Your task to perform on an android device: check battery use Image 0: 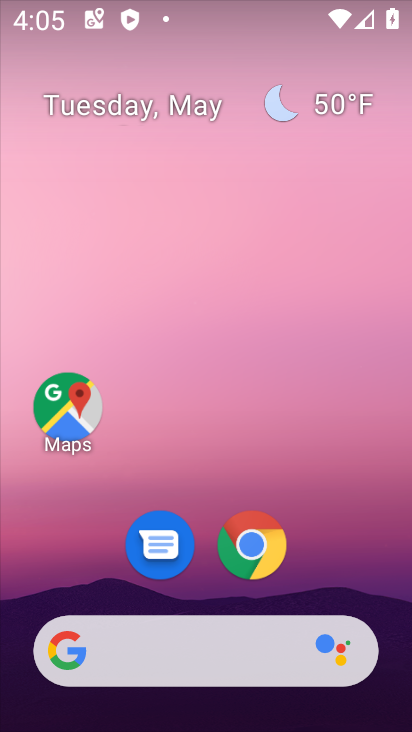
Step 0: drag from (230, 566) to (244, 329)
Your task to perform on an android device: check battery use Image 1: 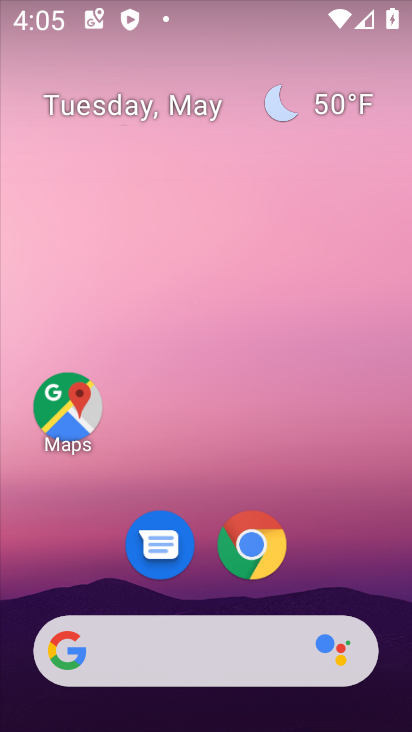
Step 1: drag from (182, 579) to (231, 219)
Your task to perform on an android device: check battery use Image 2: 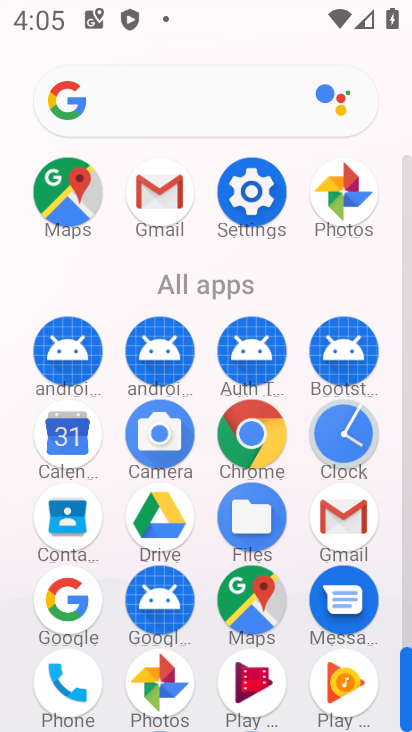
Step 2: click (259, 208)
Your task to perform on an android device: check battery use Image 3: 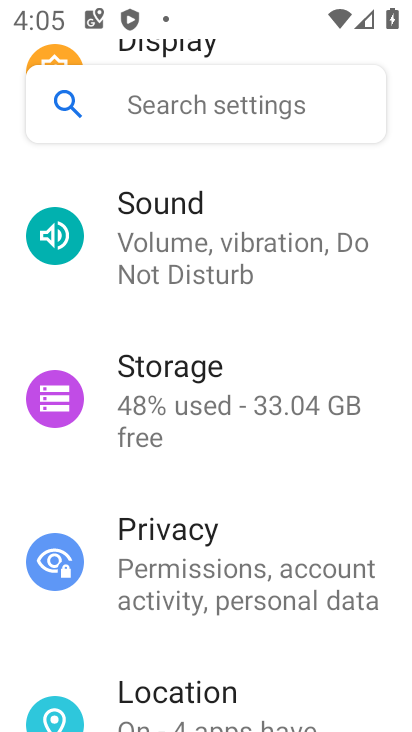
Step 3: drag from (285, 663) to (308, 338)
Your task to perform on an android device: check battery use Image 4: 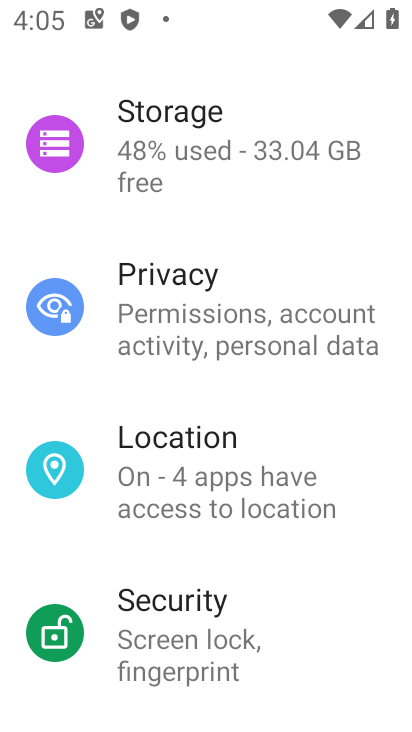
Step 4: drag from (246, 601) to (273, 204)
Your task to perform on an android device: check battery use Image 5: 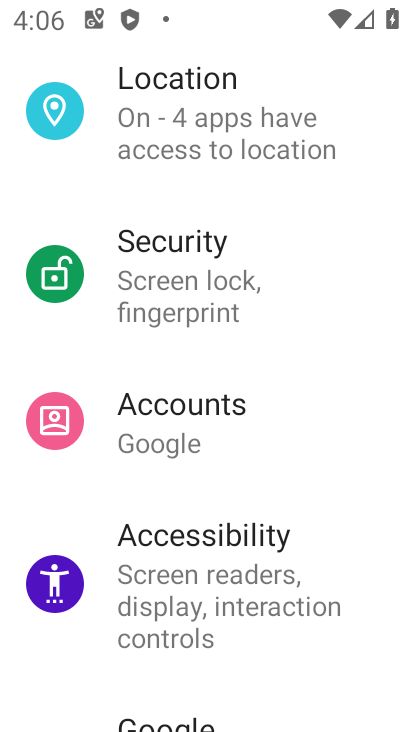
Step 5: drag from (178, 264) to (193, 646)
Your task to perform on an android device: check battery use Image 6: 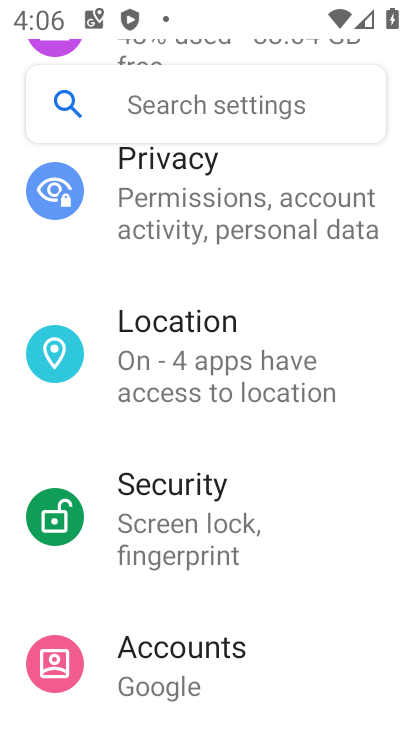
Step 6: drag from (254, 240) to (280, 661)
Your task to perform on an android device: check battery use Image 7: 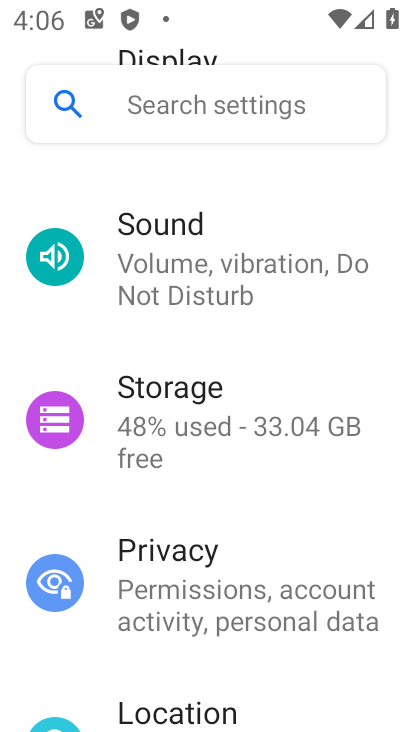
Step 7: drag from (255, 277) to (279, 620)
Your task to perform on an android device: check battery use Image 8: 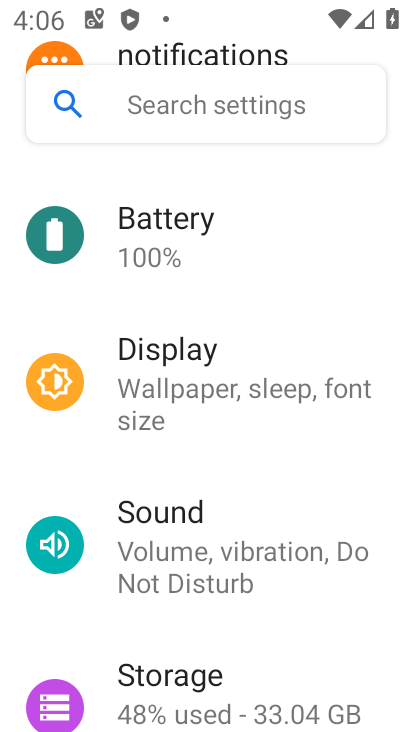
Step 8: click (211, 217)
Your task to perform on an android device: check battery use Image 9: 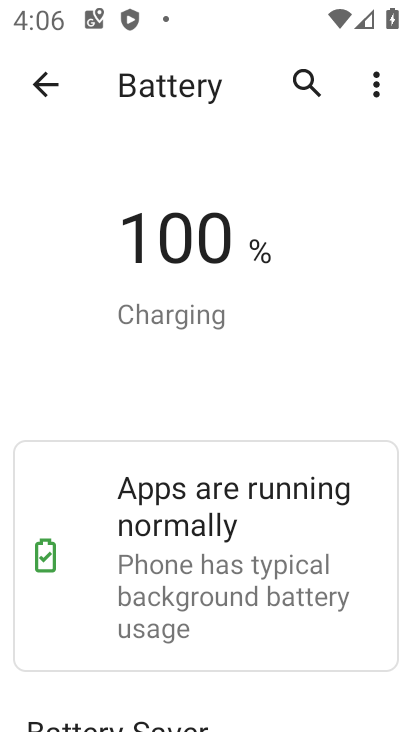
Step 9: click (358, 93)
Your task to perform on an android device: check battery use Image 10: 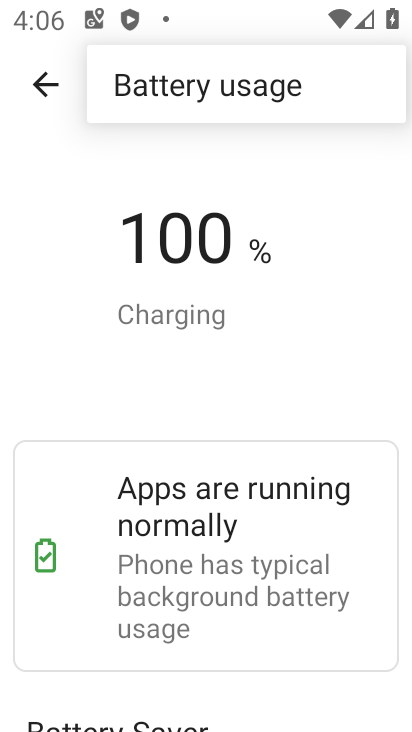
Step 10: click (346, 91)
Your task to perform on an android device: check battery use Image 11: 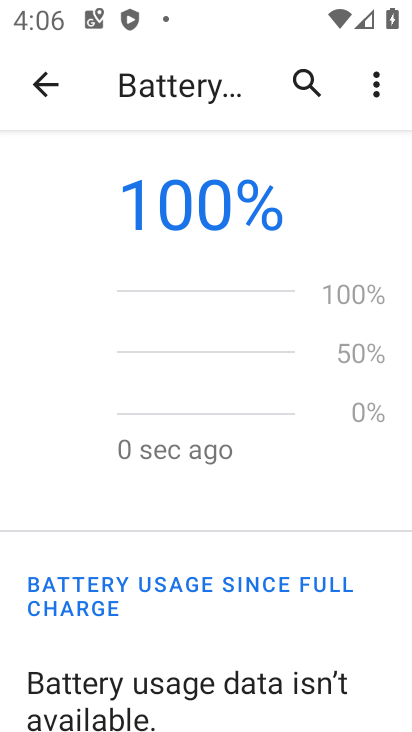
Step 11: task complete